Your task to perform on an android device: turn on sleep mode Image 0: 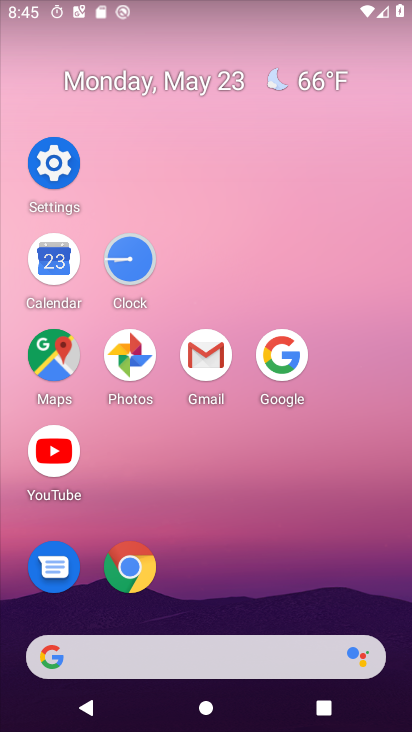
Step 0: click (145, 352)
Your task to perform on an android device: turn on sleep mode Image 1: 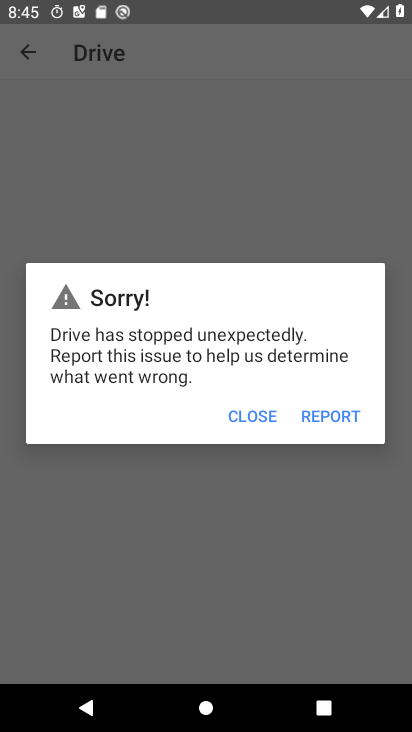
Step 1: click (250, 421)
Your task to perform on an android device: turn on sleep mode Image 2: 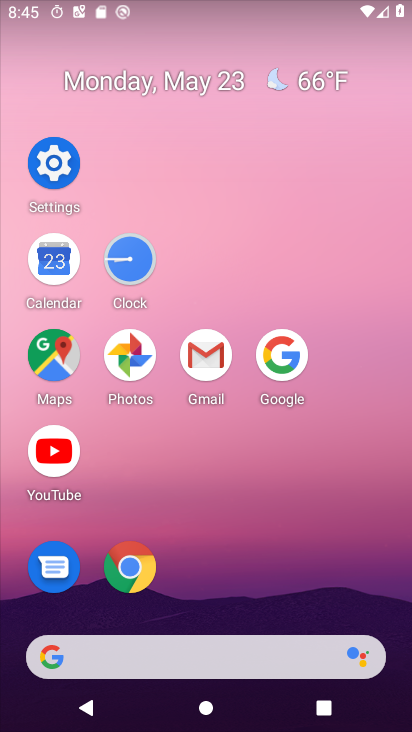
Step 2: click (124, 359)
Your task to perform on an android device: turn on sleep mode Image 3: 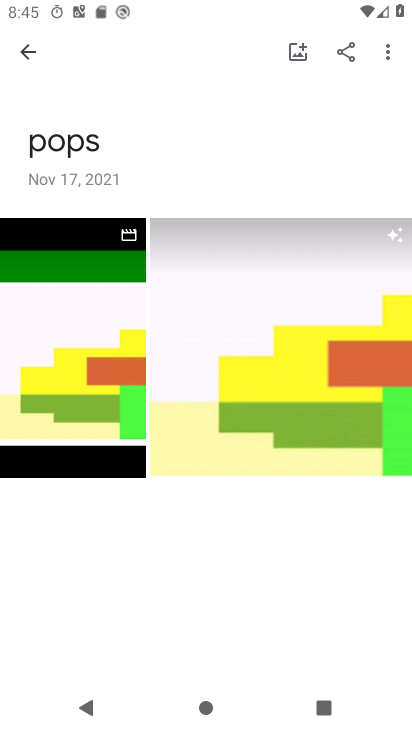
Step 3: click (41, 42)
Your task to perform on an android device: turn on sleep mode Image 4: 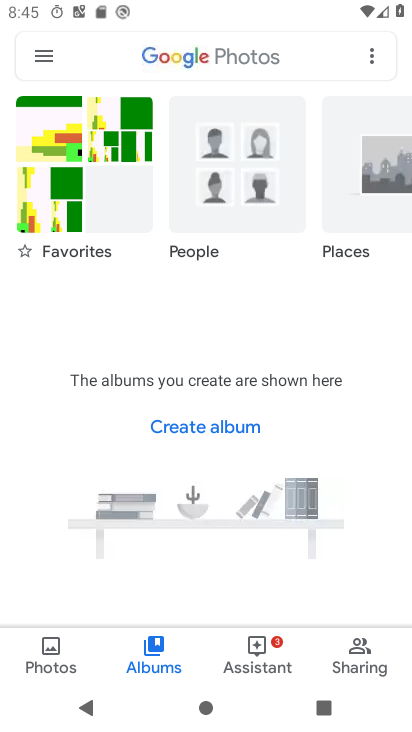
Step 4: click (198, 55)
Your task to perform on an android device: turn on sleep mode Image 5: 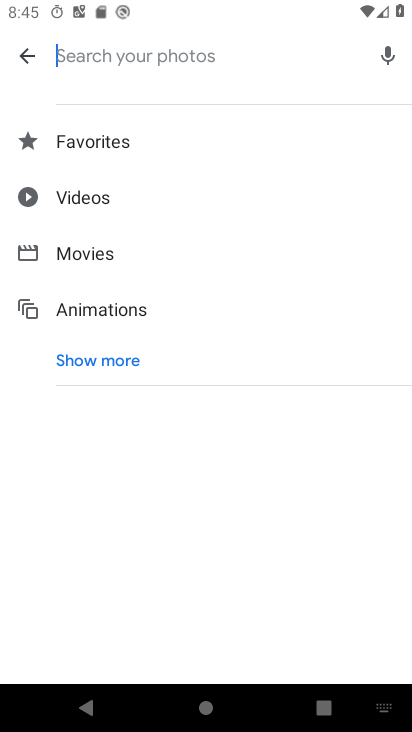
Step 5: click (134, 358)
Your task to perform on an android device: turn on sleep mode Image 6: 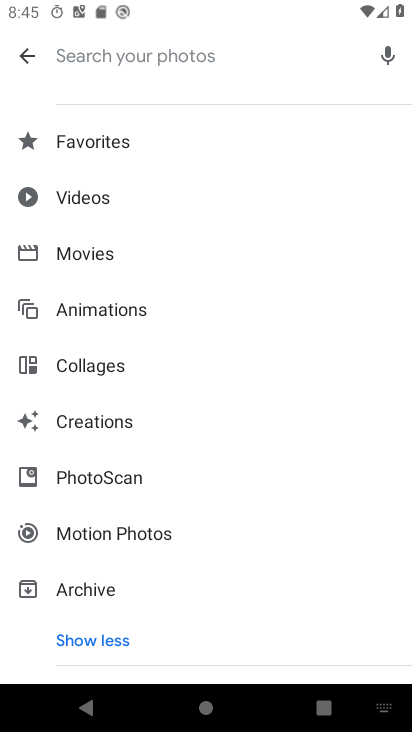
Step 6: click (127, 421)
Your task to perform on an android device: turn on sleep mode Image 7: 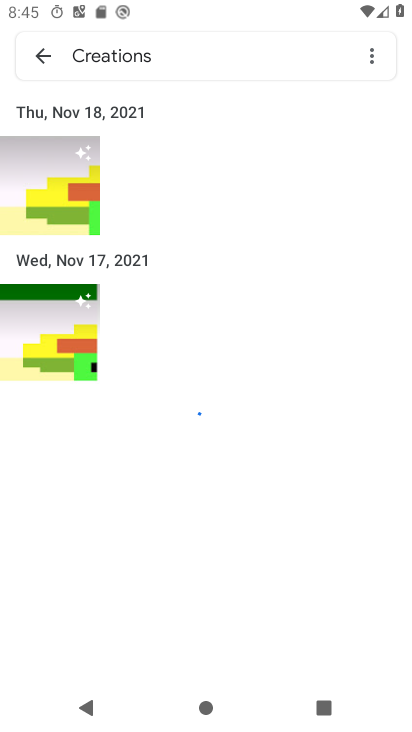
Step 7: task complete